Your task to perform on an android device: Open calendar and show me the second week of next month Image 0: 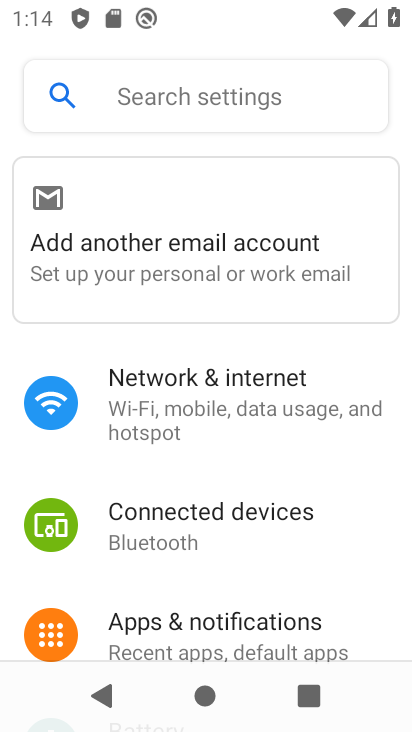
Step 0: press home button
Your task to perform on an android device: Open calendar and show me the second week of next month Image 1: 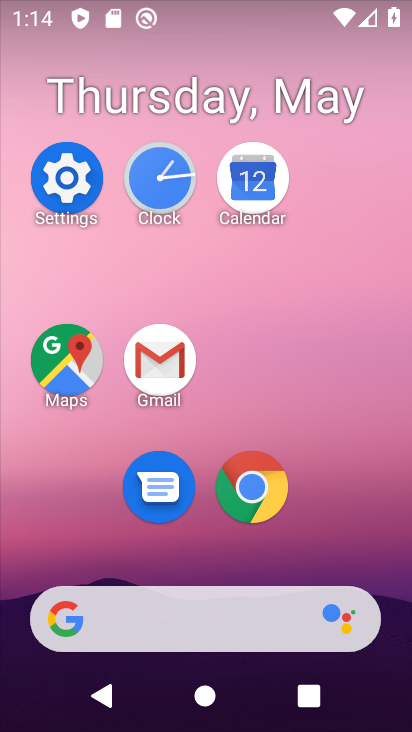
Step 1: click (236, 177)
Your task to perform on an android device: Open calendar and show me the second week of next month Image 2: 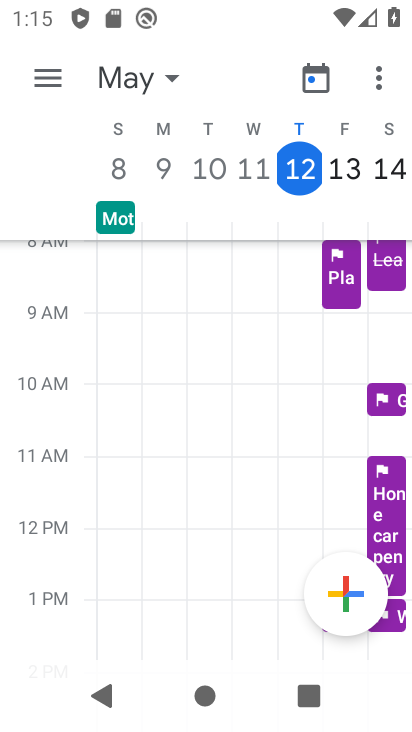
Step 2: click (147, 87)
Your task to perform on an android device: Open calendar and show me the second week of next month Image 3: 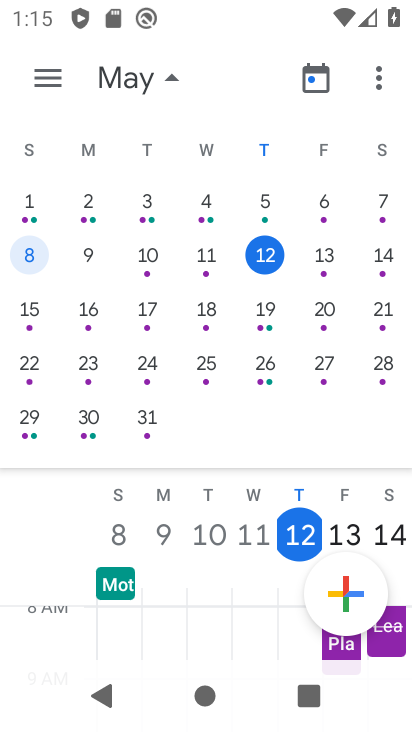
Step 3: drag from (397, 293) to (0, 330)
Your task to perform on an android device: Open calendar and show me the second week of next month Image 4: 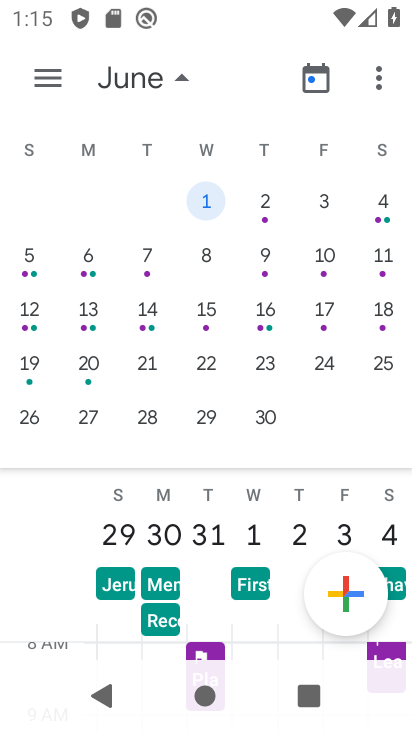
Step 4: click (47, 82)
Your task to perform on an android device: Open calendar and show me the second week of next month Image 5: 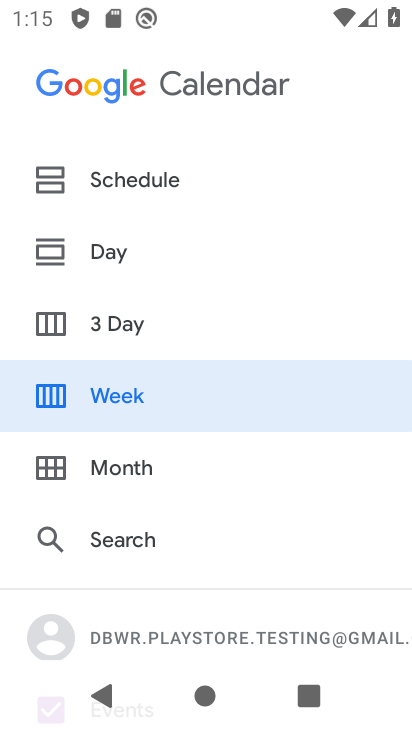
Step 5: click (119, 380)
Your task to perform on an android device: Open calendar and show me the second week of next month Image 6: 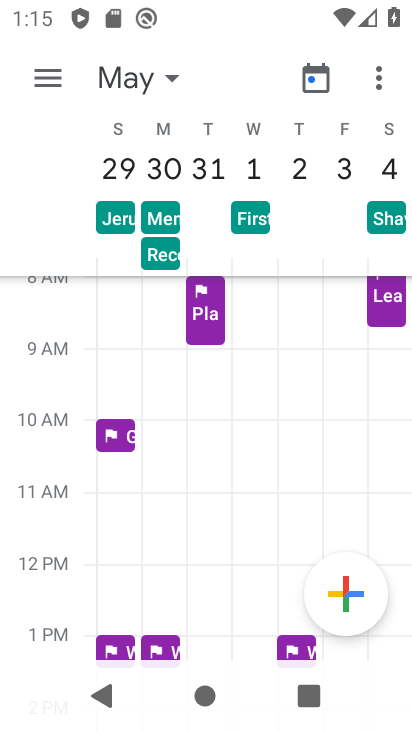
Step 6: task complete